Your task to perform on an android device: Show the shopping cart on bestbuy. Search for macbook on bestbuy, select the first entry, and add it to the cart. Image 0: 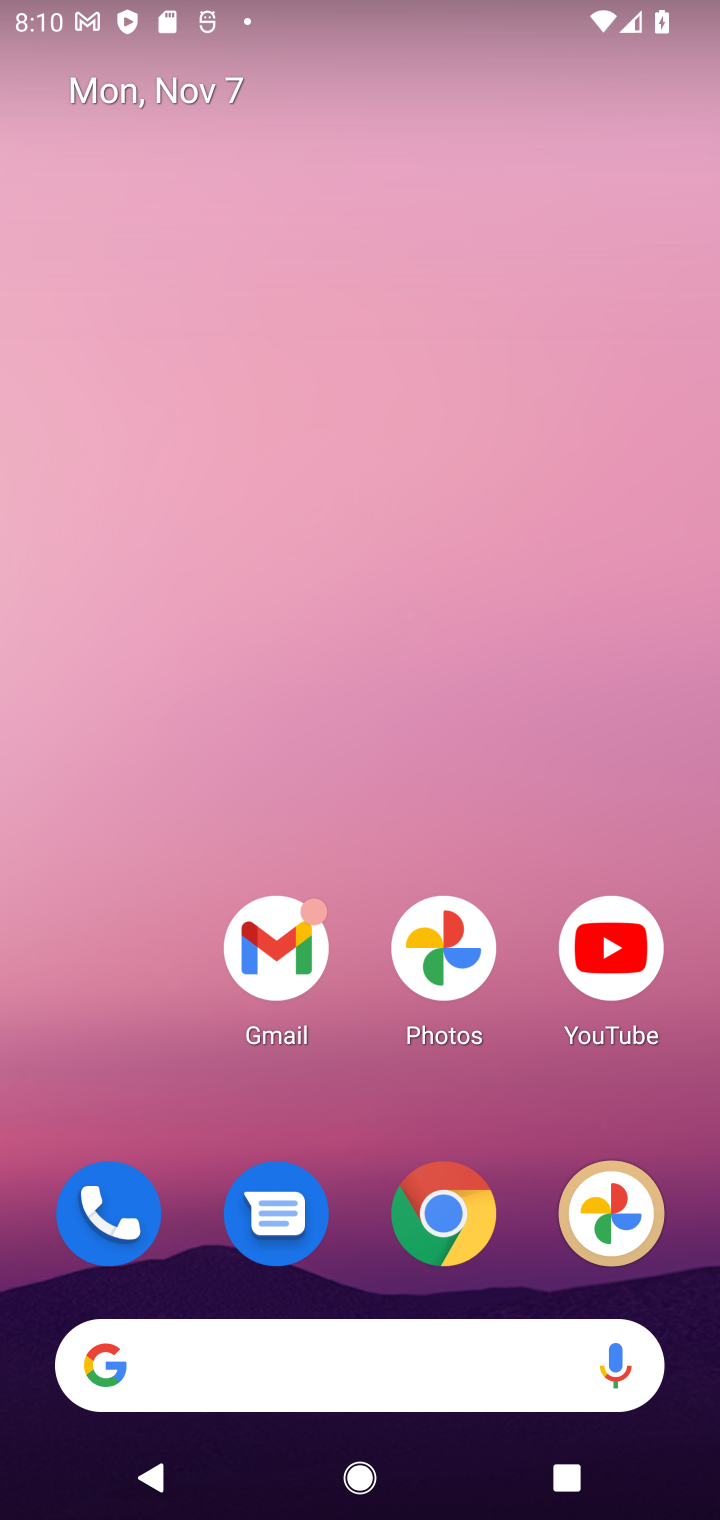
Step 0: click (440, 1212)
Your task to perform on an android device: Show the shopping cart on bestbuy. Search for macbook on bestbuy, select the first entry, and add it to the cart. Image 1: 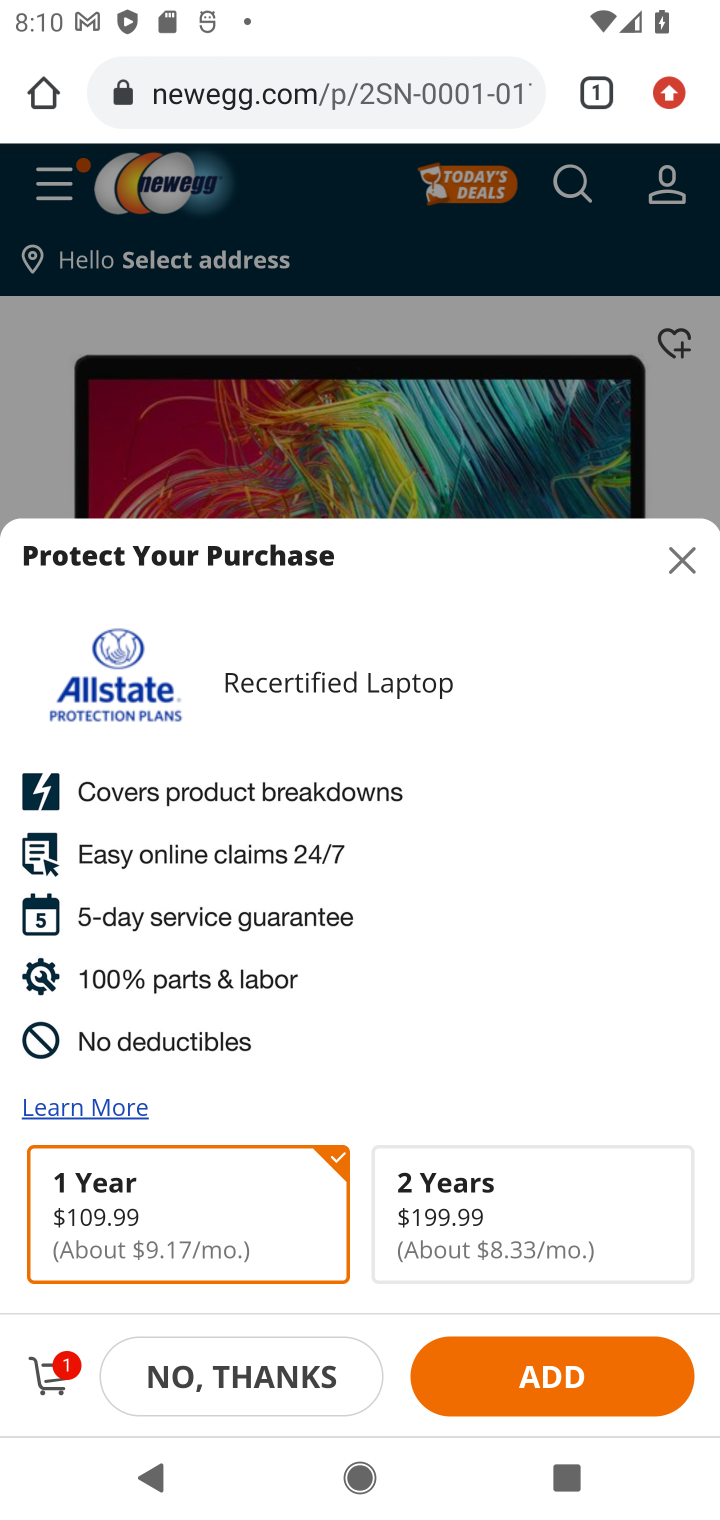
Step 1: click (341, 96)
Your task to perform on an android device: Show the shopping cart on bestbuy. Search for macbook on bestbuy, select the first entry, and add it to the cart. Image 2: 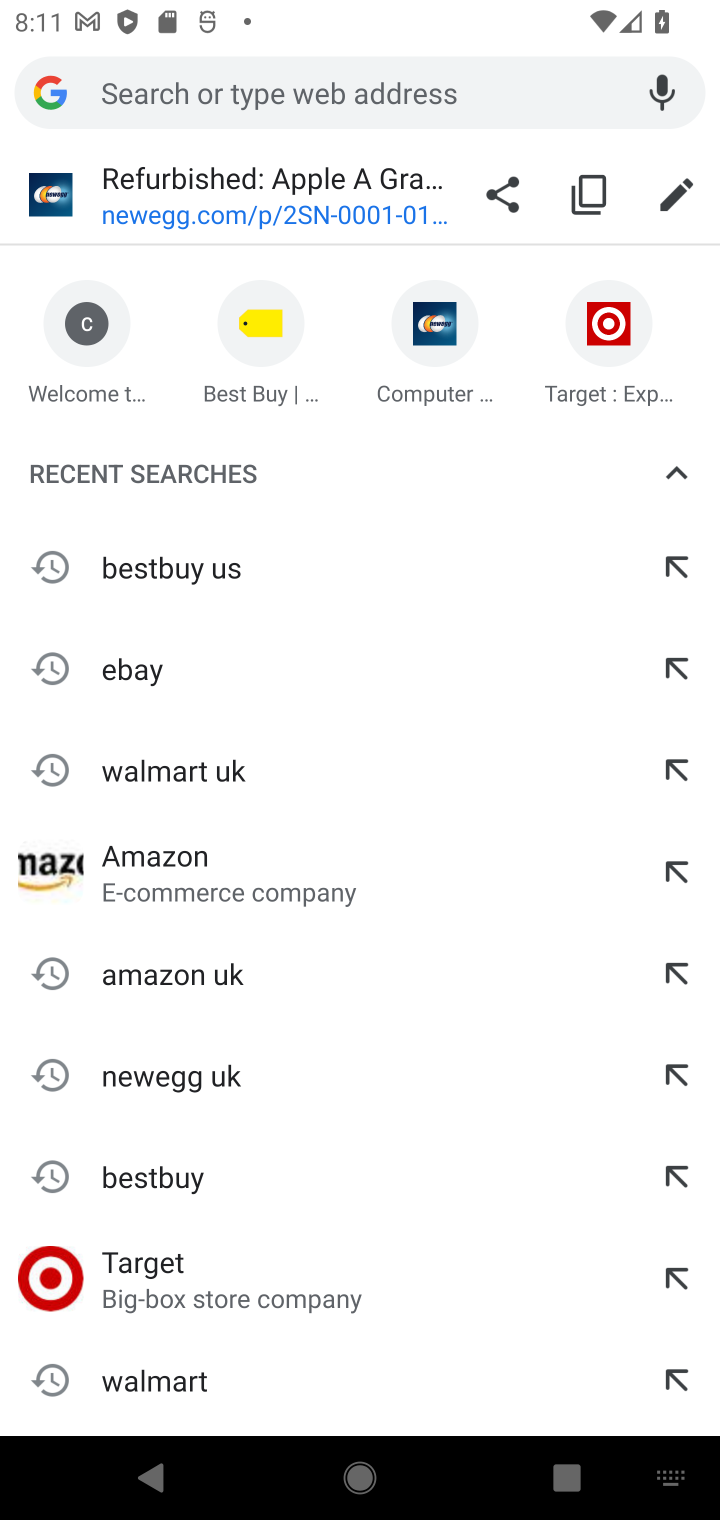
Step 2: type "bestbuy.com"
Your task to perform on an android device: Show the shopping cart on bestbuy. Search for macbook on bestbuy, select the first entry, and add it to the cart. Image 3: 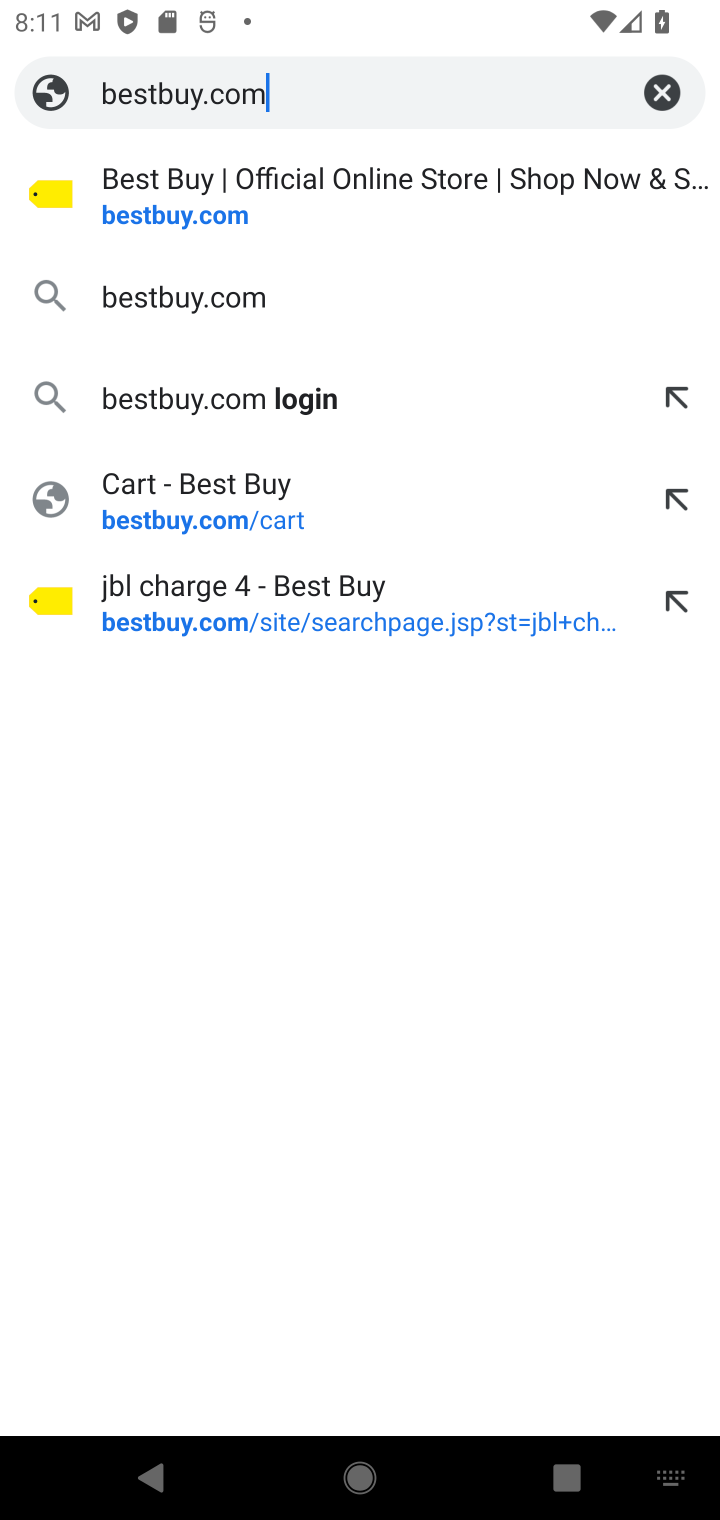
Step 3: click (207, 220)
Your task to perform on an android device: Show the shopping cart on bestbuy. Search for macbook on bestbuy, select the first entry, and add it to the cart. Image 4: 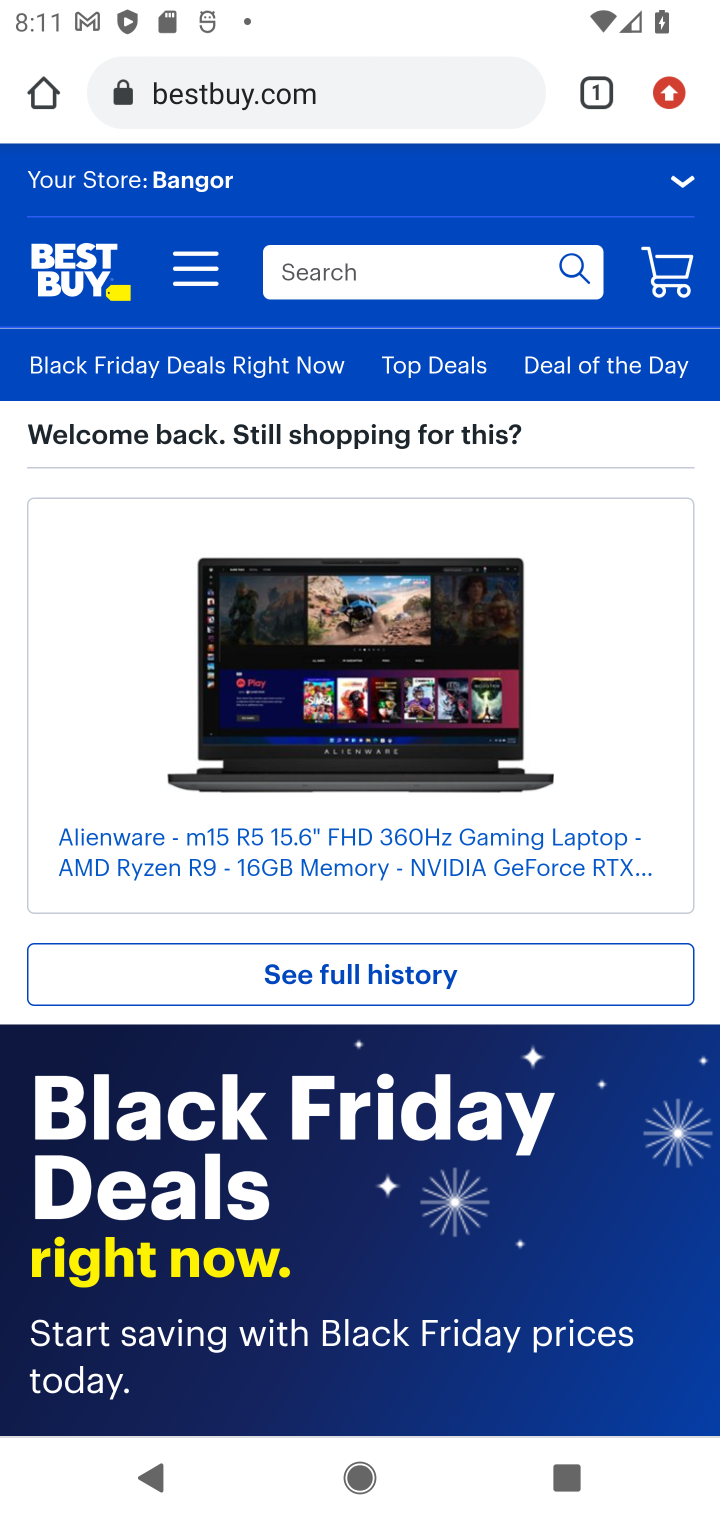
Step 4: click (672, 278)
Your task to perform on an android device: Show the shopping cart on bestbuy. Search for macbook on bestbuy, select the first entry, and add it to the cart. Image 5: 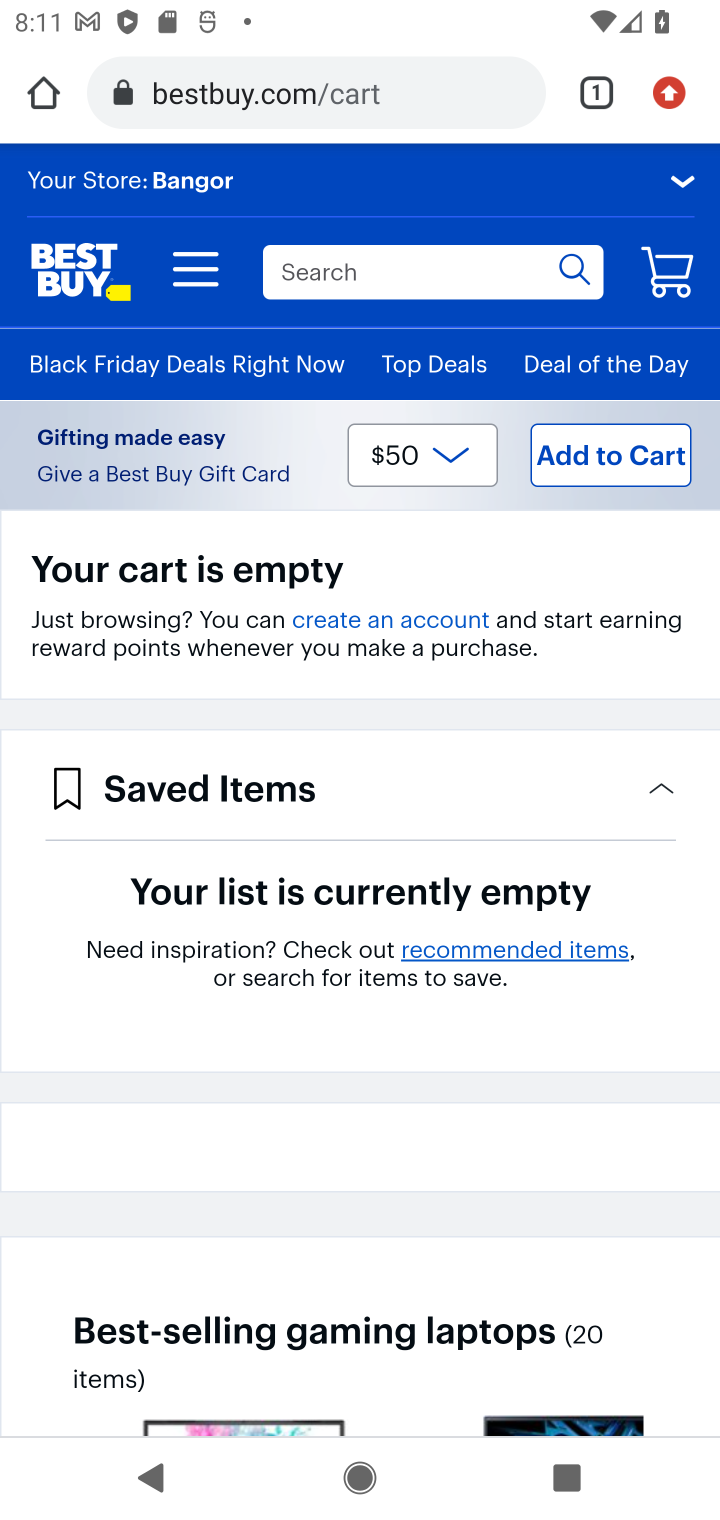
Step 5: click (353, 278)
Your task to perform on an android device: Show the shopping cart on bestbuy. Search for macbook on bestbuy, select the first entry, and add it to the cart. Image 6: 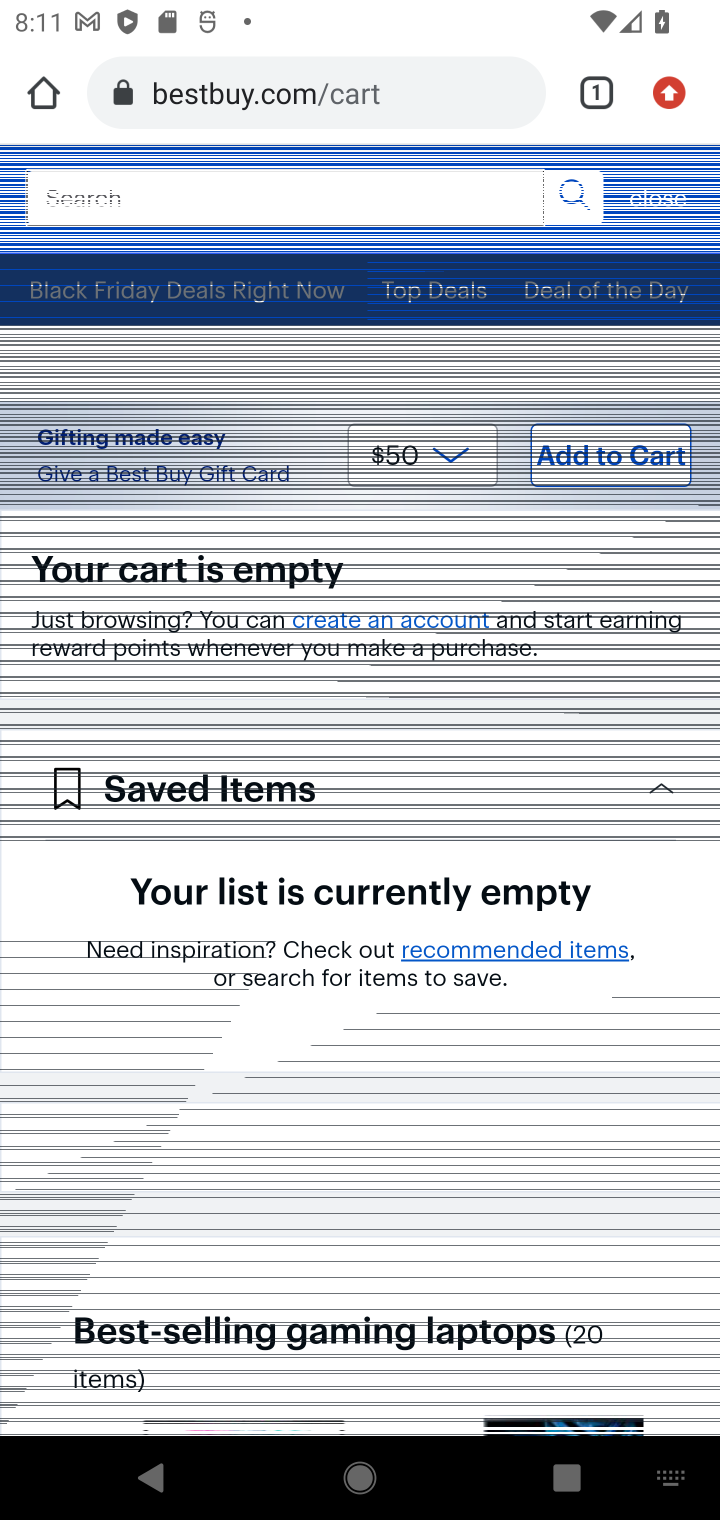
Step 6: type " macbook "
Your task to perform on an android device: Show the shopping cart on bestbuy. Search for macbook on bestbuy, select the first entry, and add it to the cart. Image 7: 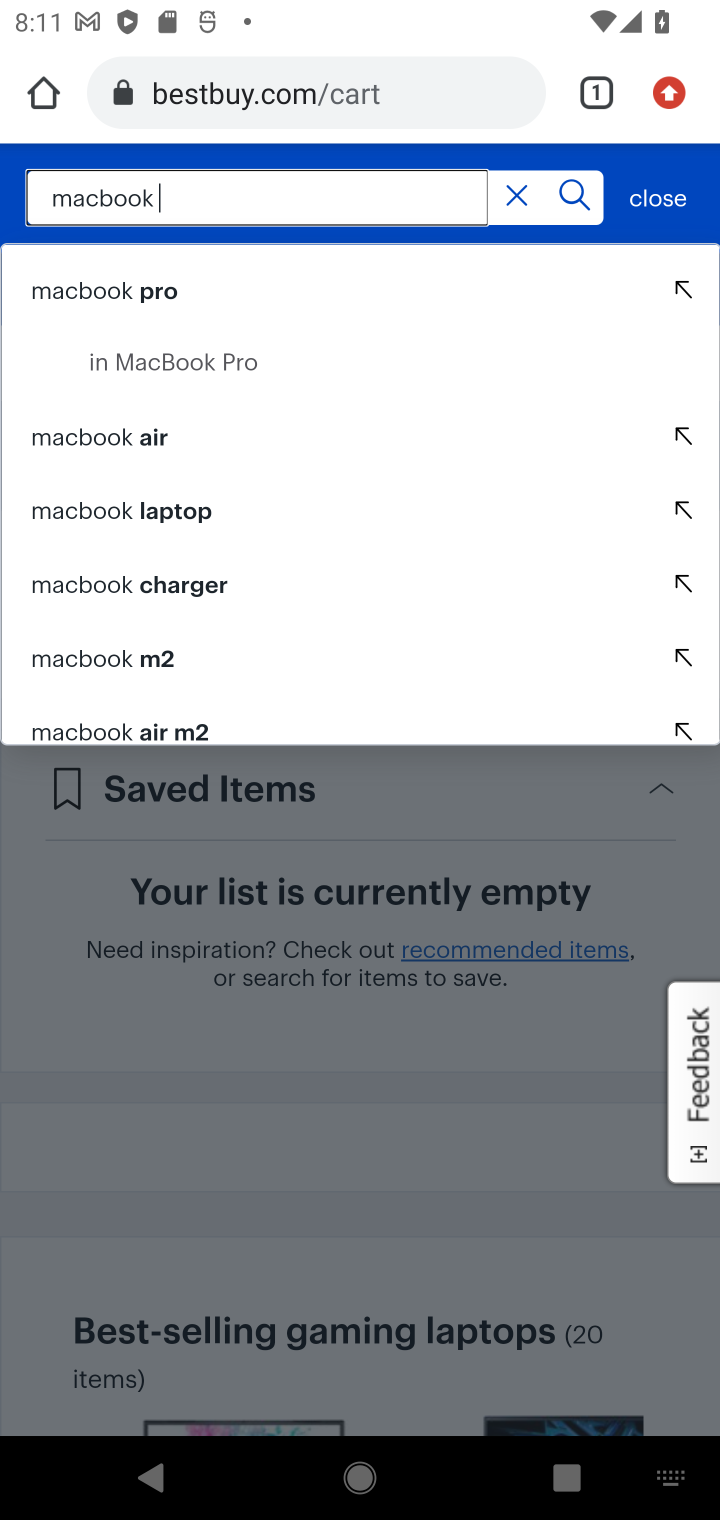
Step 7: click (562, 191)
Your task to perform on an android device: Show the shopping cart on bestbuy. Search for macbook on bestbuy, select the first entry, and add it to the cart. Image 8: 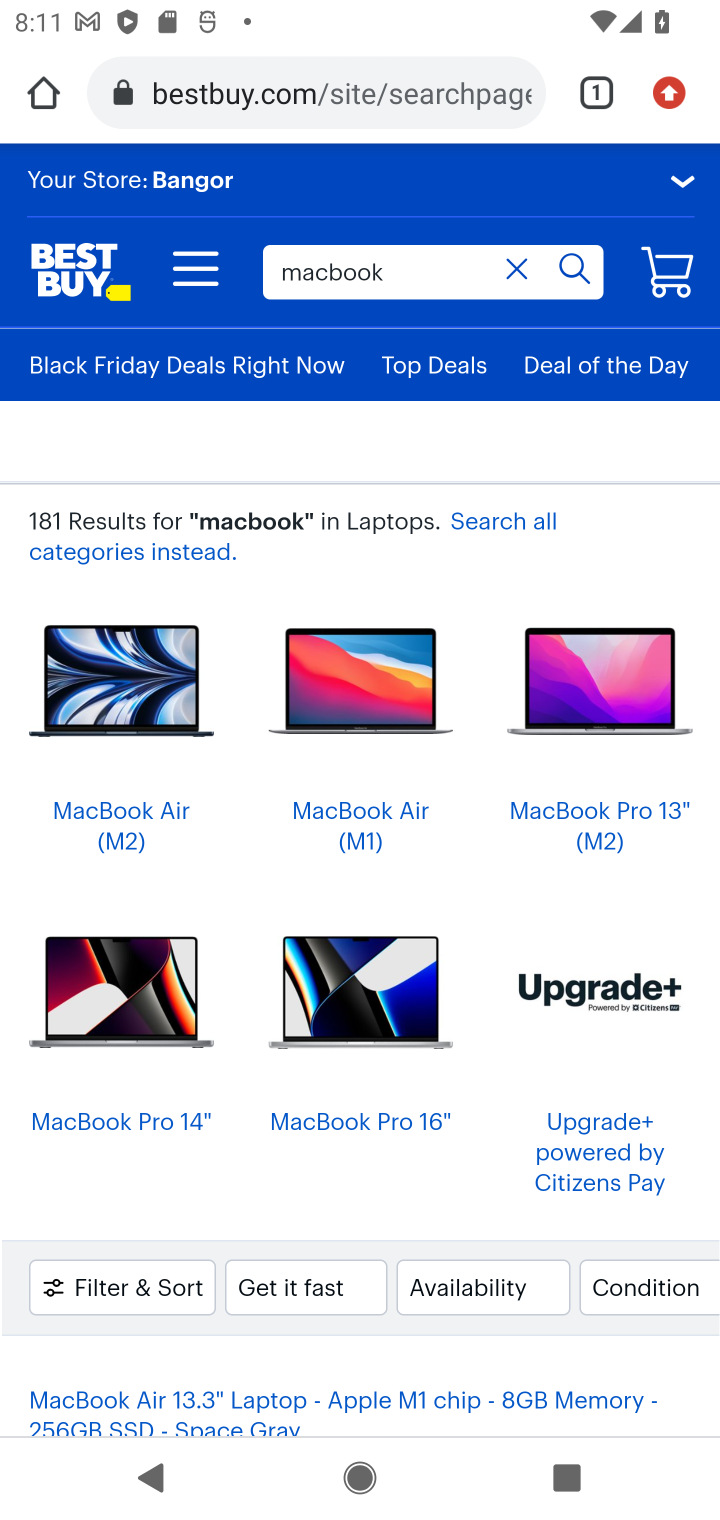
Step 8: drag from (265, 1073) to (269, 437)
Your task to perform on an android device: Show the shopping cart on bestbuy. Search for macbook on bestbuy, select the first entry, and add it to the cart. Image 9: 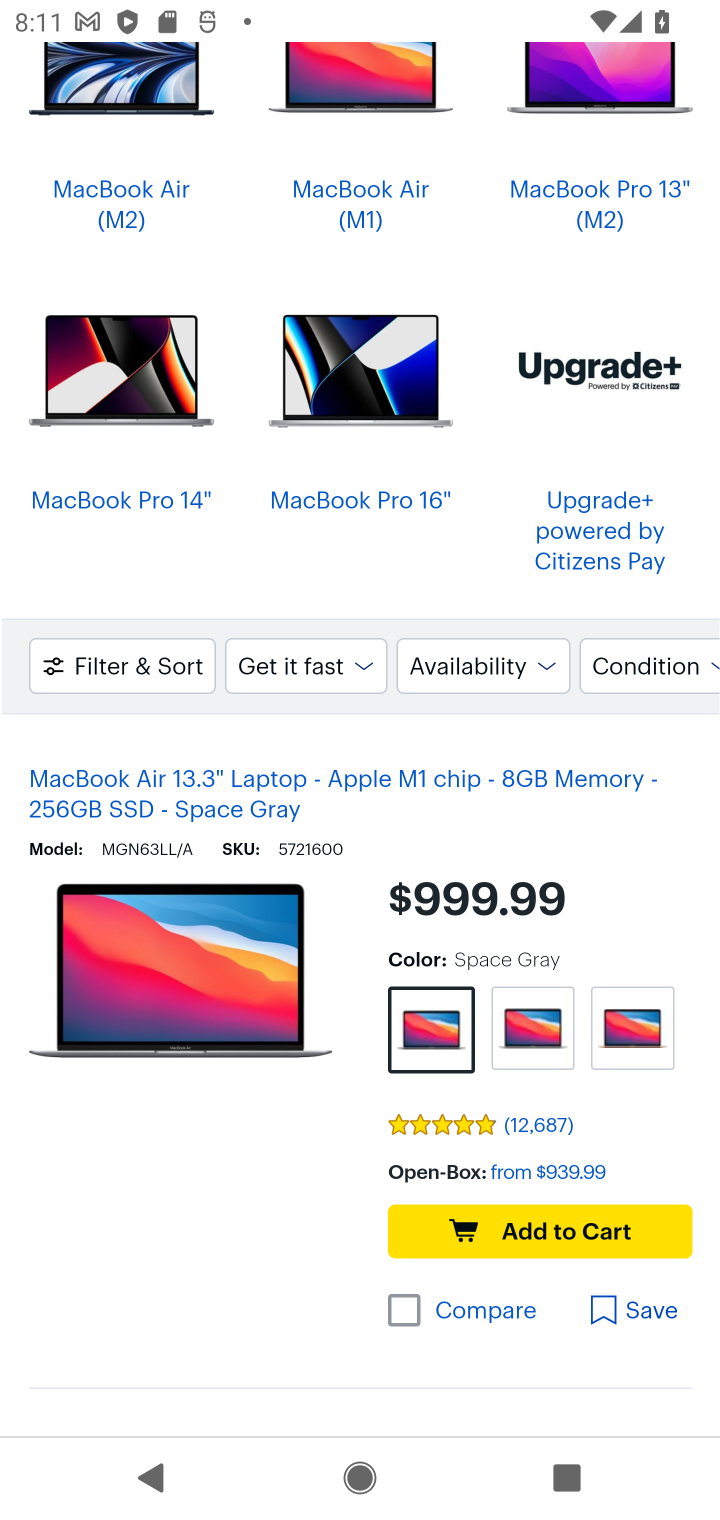
Step 9: click (530, 1230)
Your task to perform on an android device: Show the shopping cart on bestbuy. Search for macbook on bestbuy, select the first entry, and add it to the cart. Image 10: 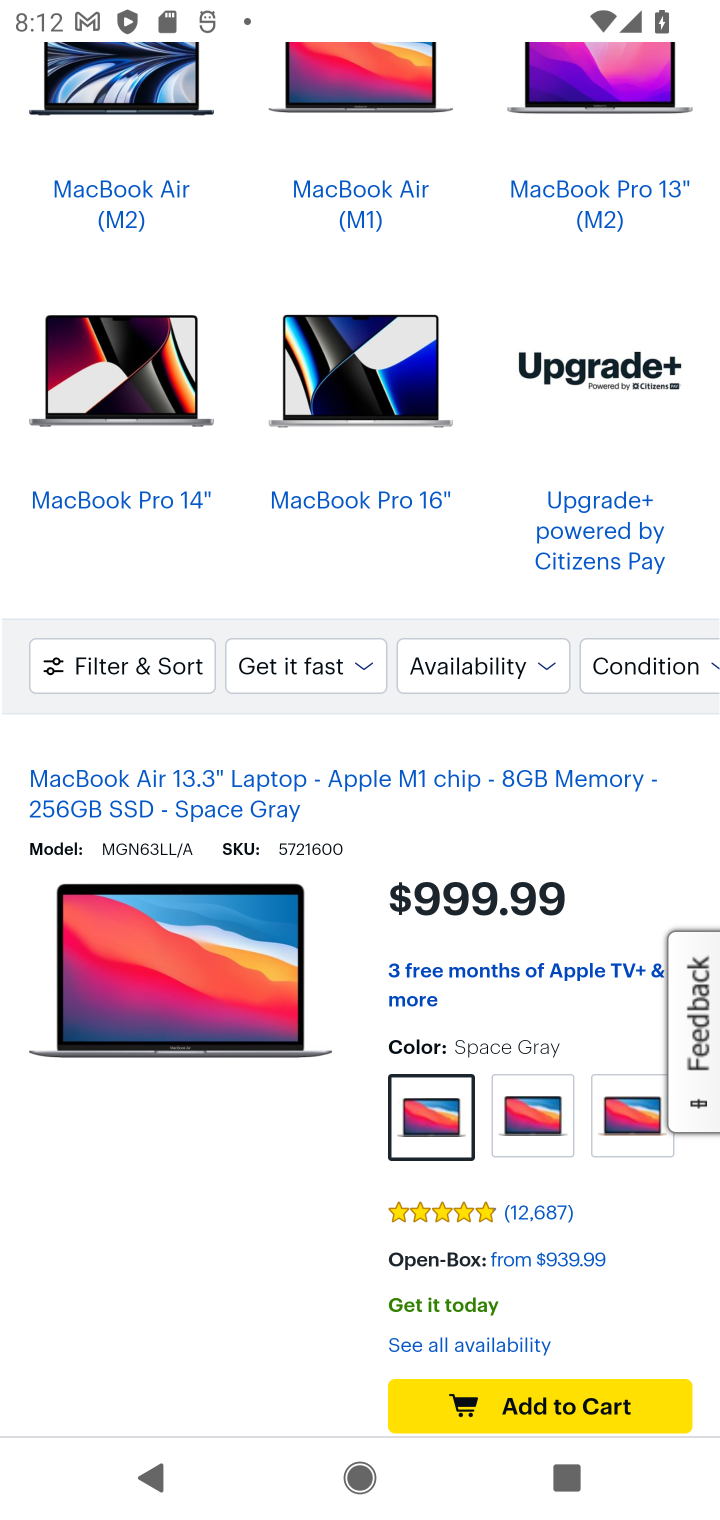
Step 10: drag from (216, 1232) to (231, 973)
Your task to perform on an android device: Show the shopping cart on bestbuy. Search for macbook on bestbuy, select the first entry, and add it to the cart. Image 11: 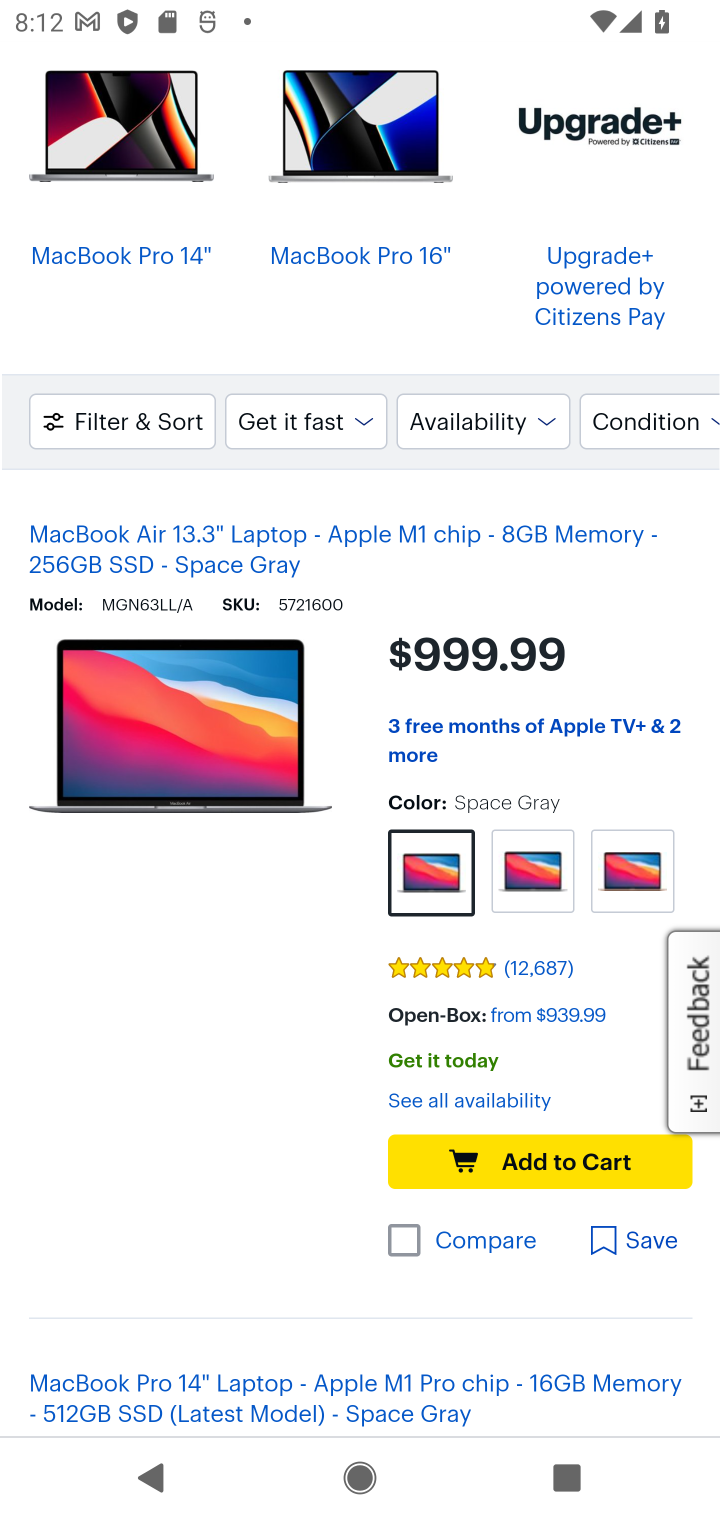
Step 11: drag from (253, 717) to (183, 1154)
Your task to perform on an android device: Show the shopping cart on bestbuy. Search for macbook on bestbuy, select the first entry, and add it to the cart. Image 12: 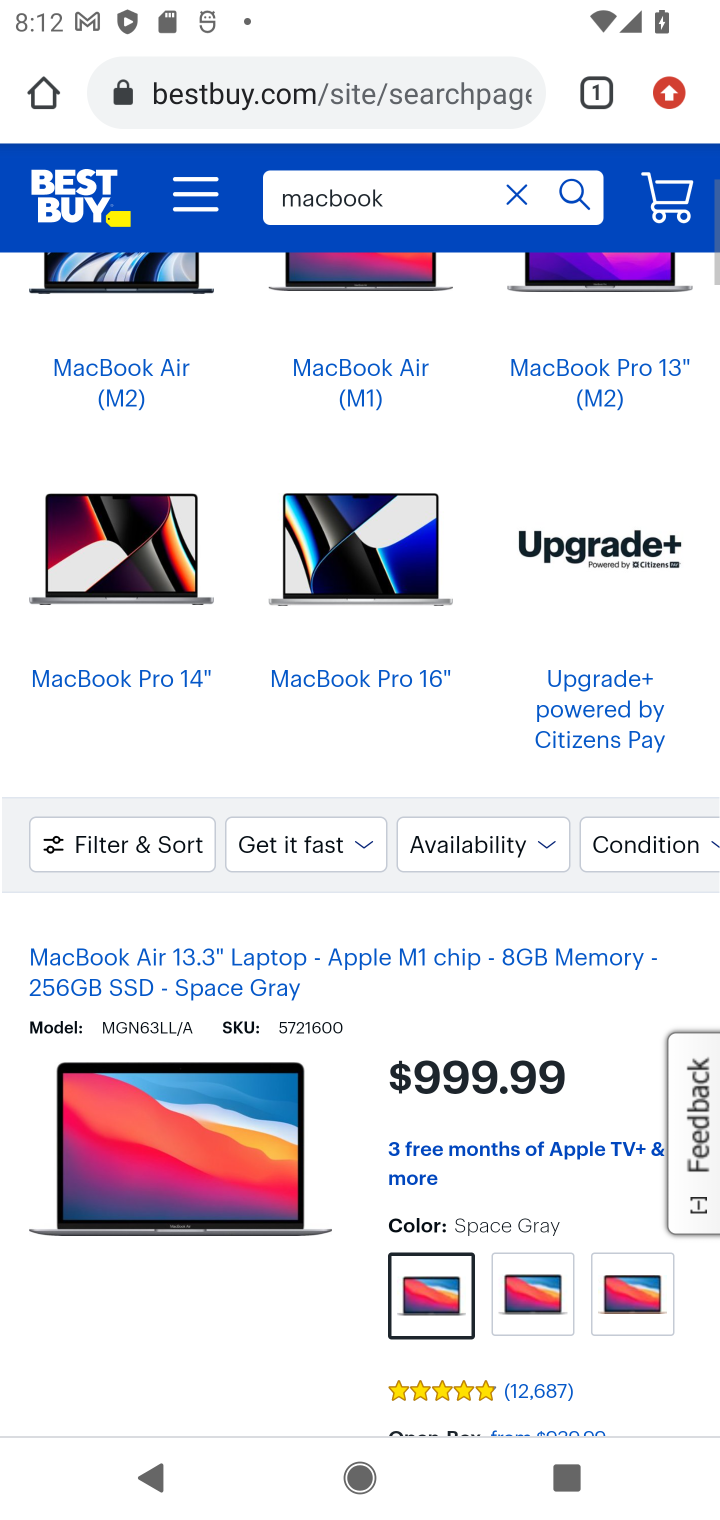
Step 12: drag from (290, 439) to (278, 838)
Your task to perform on an android device: Show the shopping cart on bestbuy. Search for macbook on bestbuy, select the first entry, and add it to the cart. Image 13: 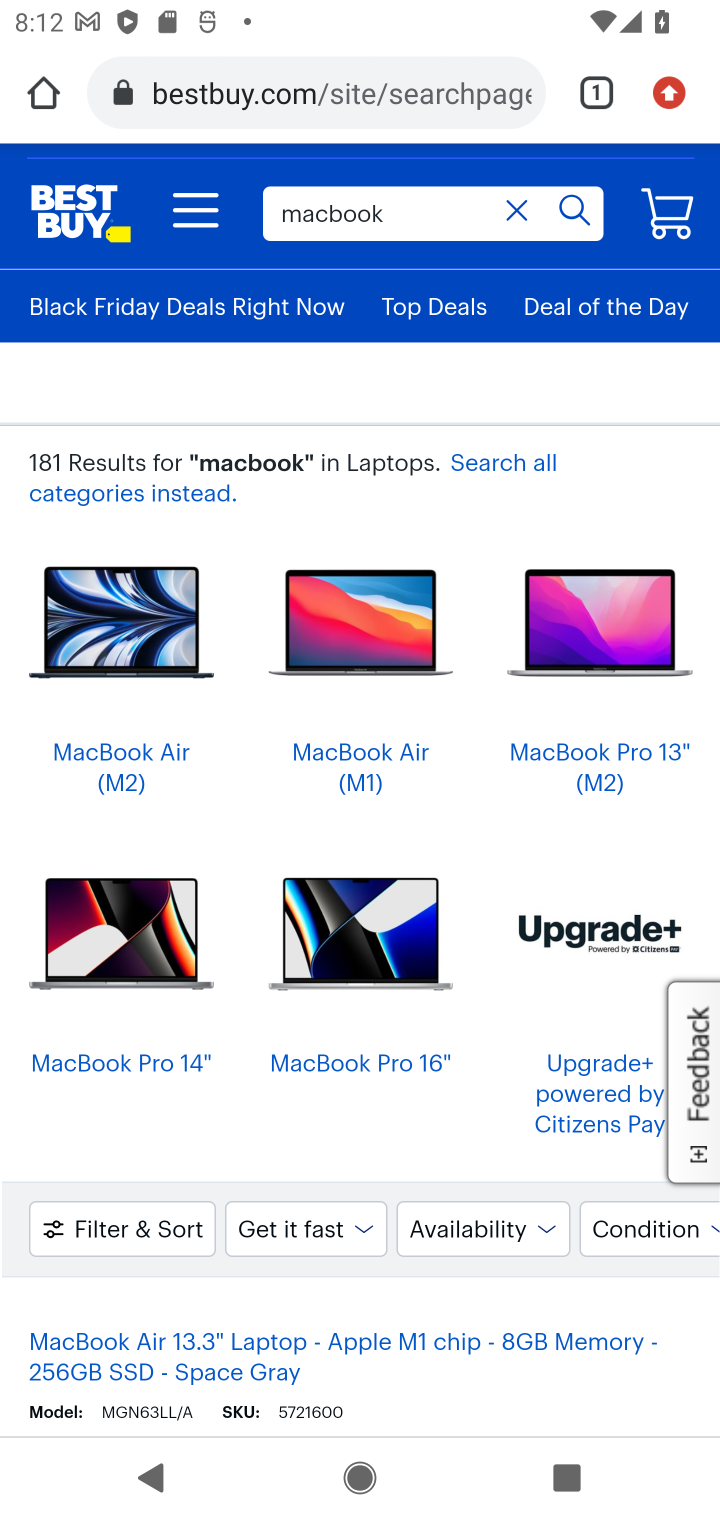
Step 13: drag from (288, 783) to (300, 375)
Your task to perform on an android device: Show the shopping cart on bestbuy. Search for macbook on bestbuy, select the first entry, and add it to the cart. Image 14: 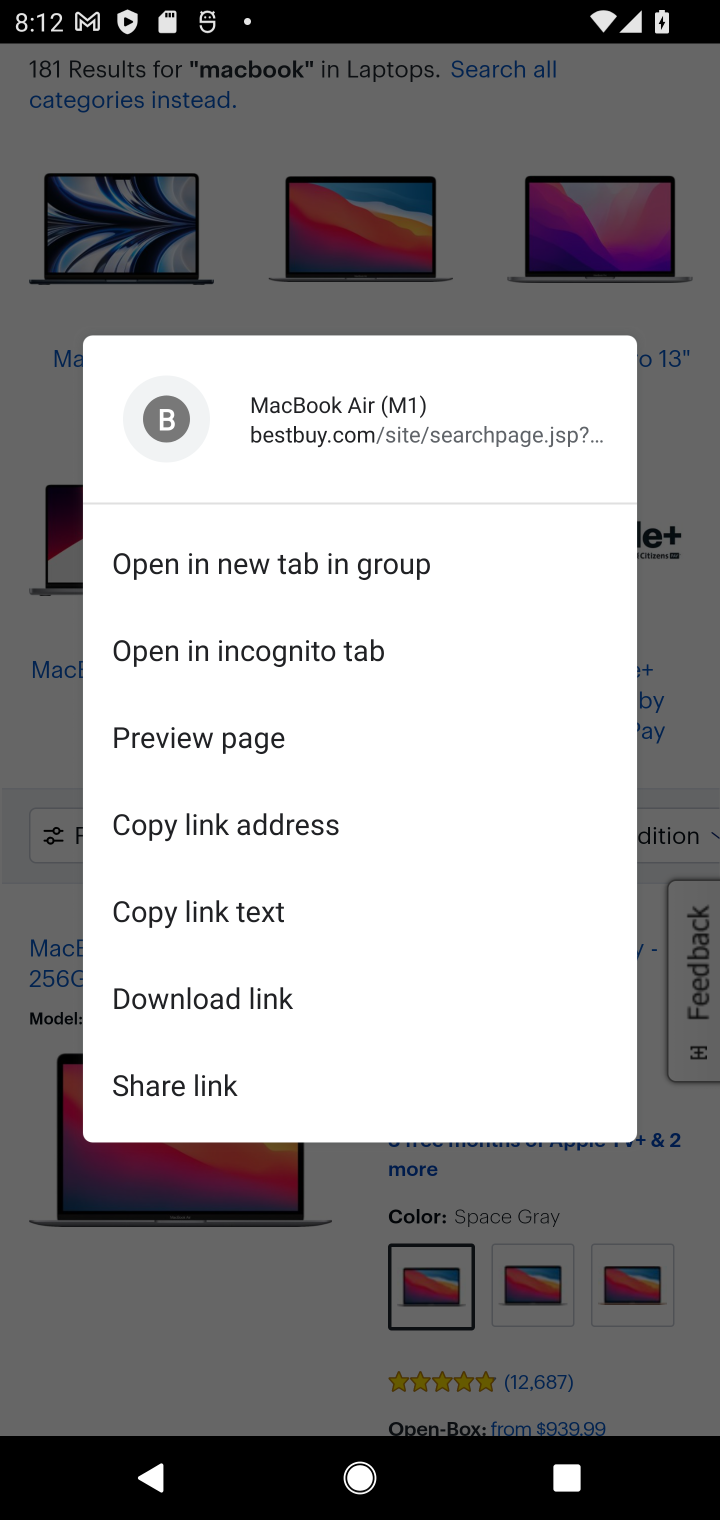
Step 14: click (200, 1210)
Your task to perform on an android device: Show the shopping cart on bestbuy. Search for macbook on bestbuy, select the first entry, and add it to the cart. Image 15: 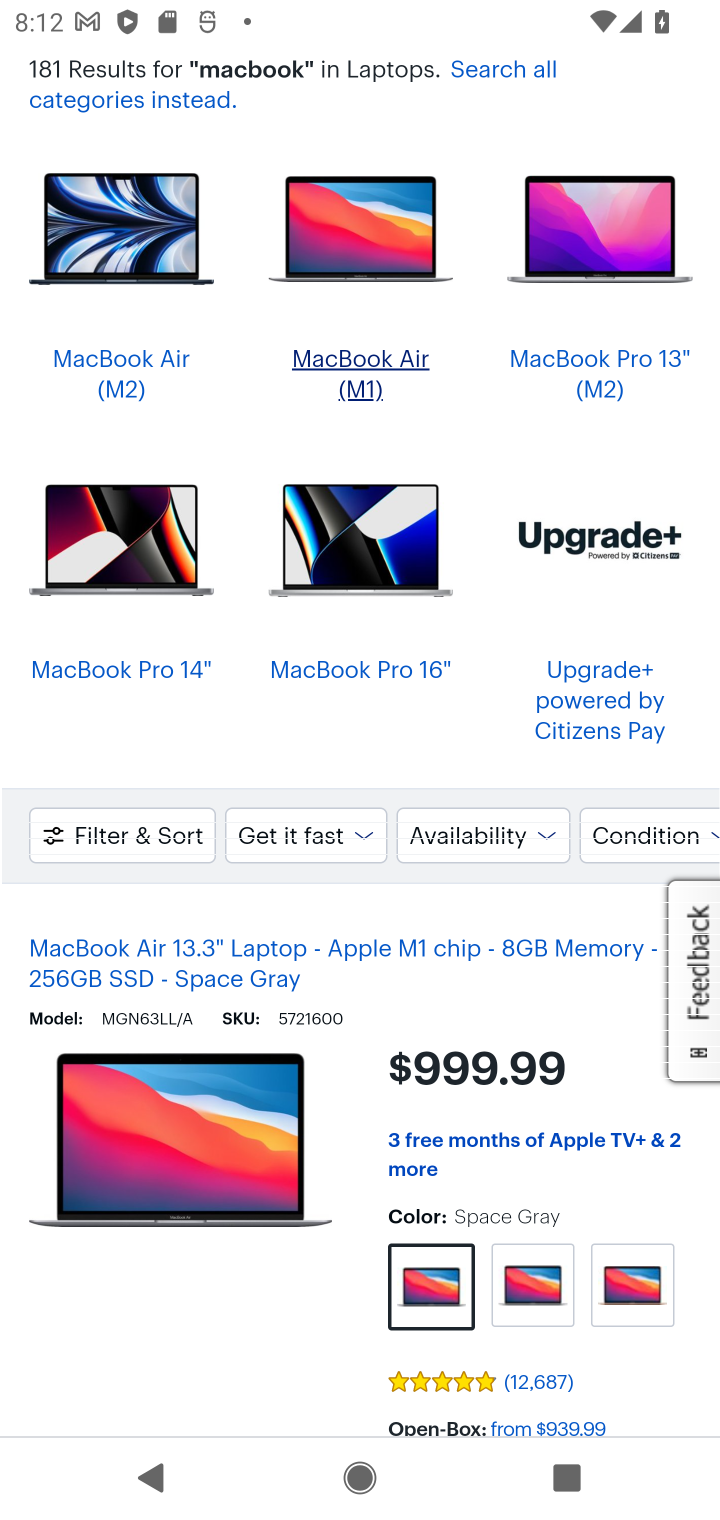
Step 15: click (200, 1210)
Your task to perform on an android device: Show the shopping cart on bestbuy. Search for macbook on bestbuy, select the first entry, and add it to the cart. Image 16: 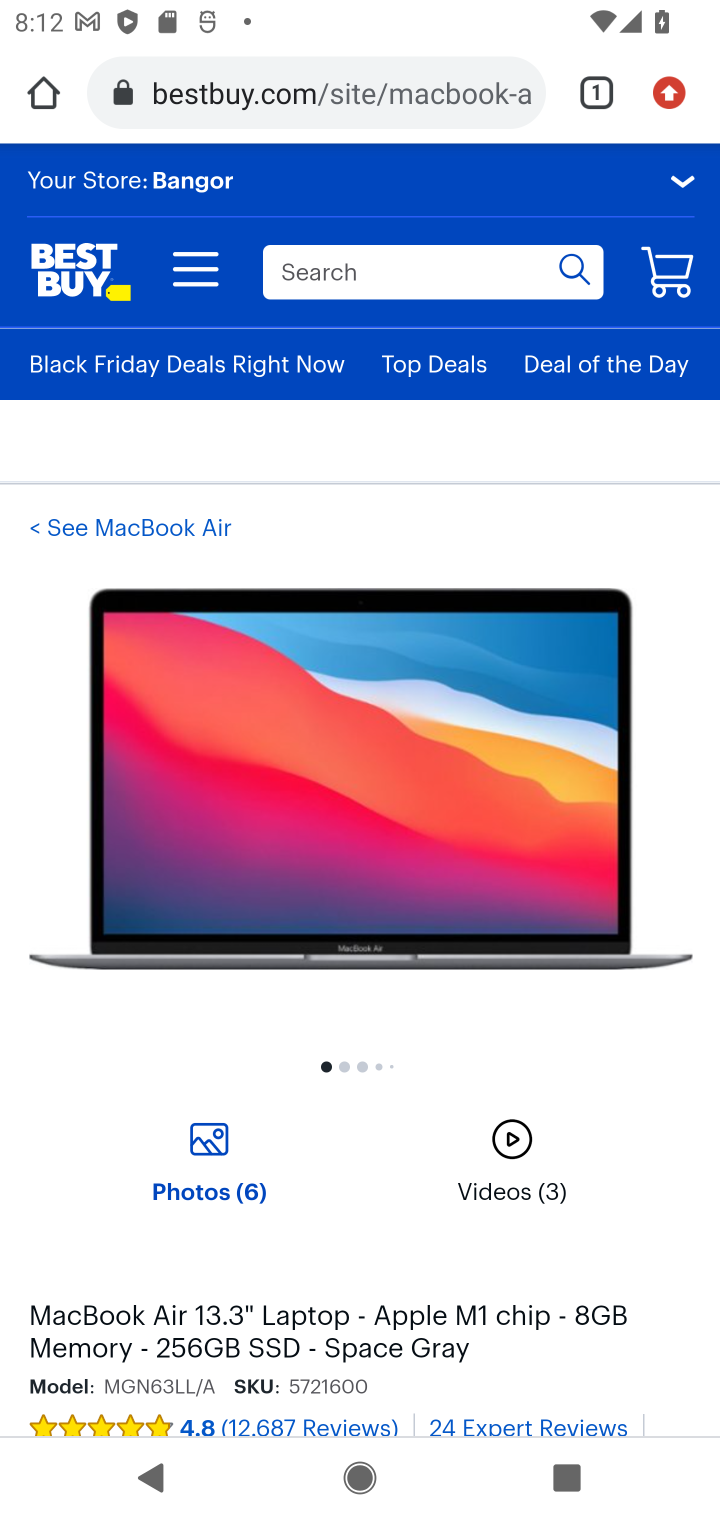
Step 16: drag from (303, 1290) to (234, 596)
Your task to perform on an android device: Show the shopping cart on bestbuy. Search for macbook on bestbuy, select the first entry, and add it to the cart. Image 17: 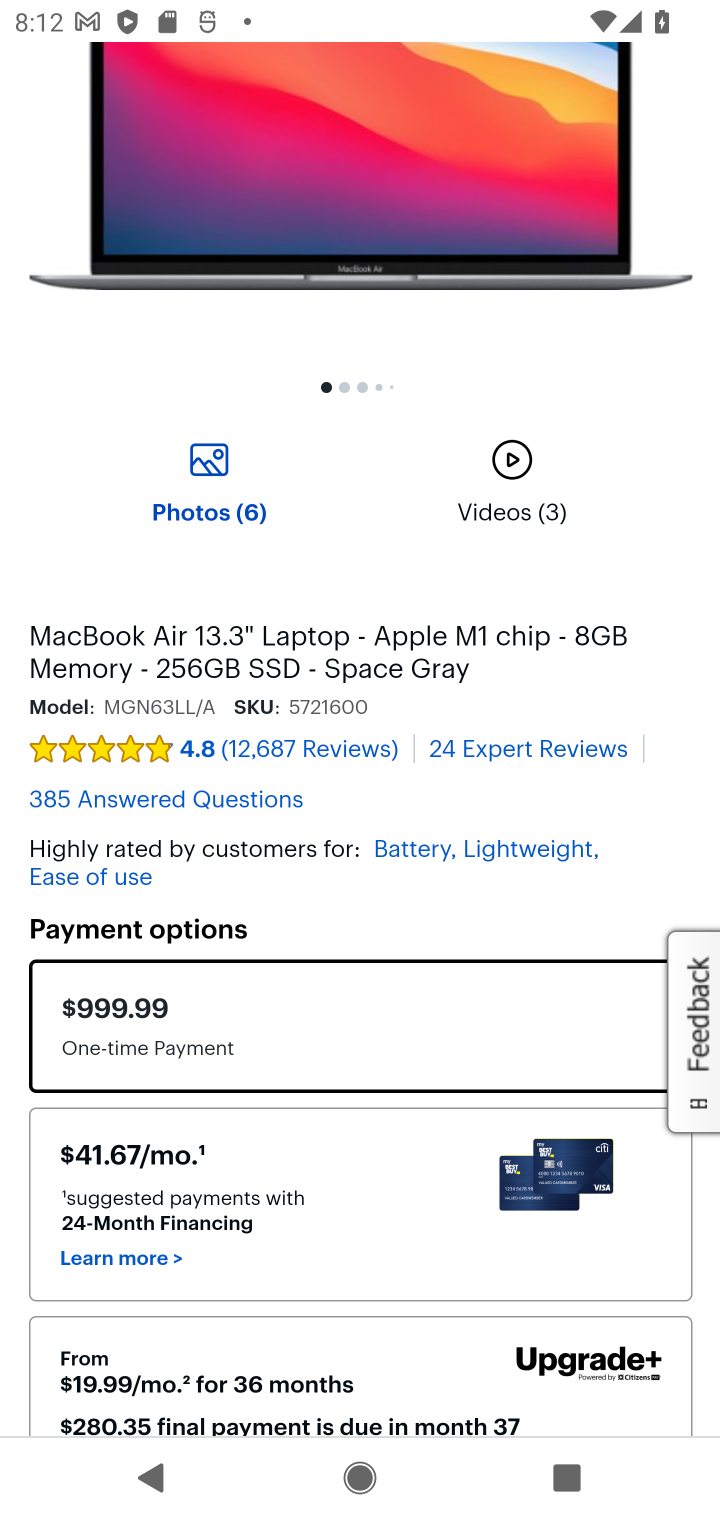
Step 17: drag from (327, 1150) to (267, 649)
Your task to perform on an android device: Show the shopping cart on bestbuy. Search for macbook on bestbuy, select the first entry, and add it to the cart. Image 18: 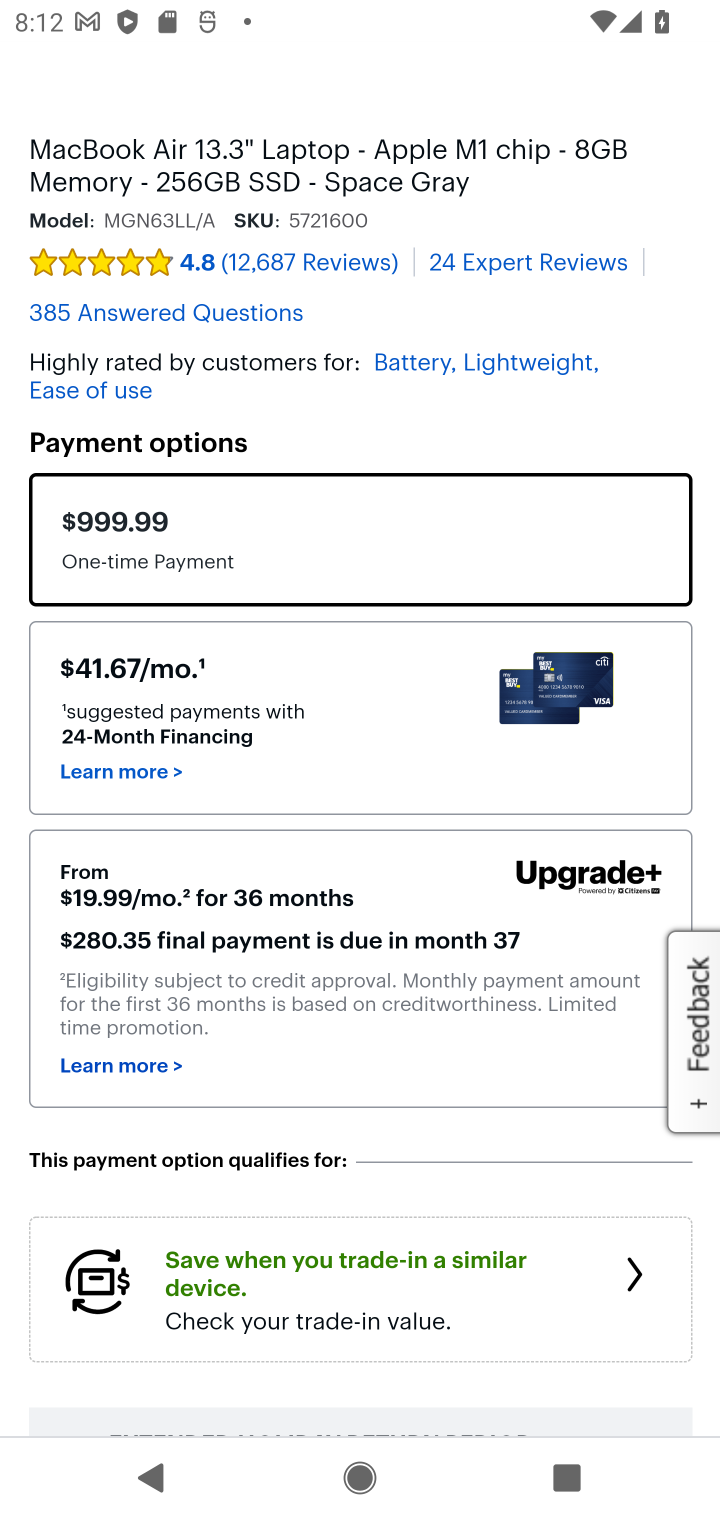
Step 18: drag from (282, 1159) to (255, 615)
Your task to perform on an android device: Show the shopping cart on bestbuy. Search for macbook on bestbuy, select the first entry, and add it to the cart. Image 19: 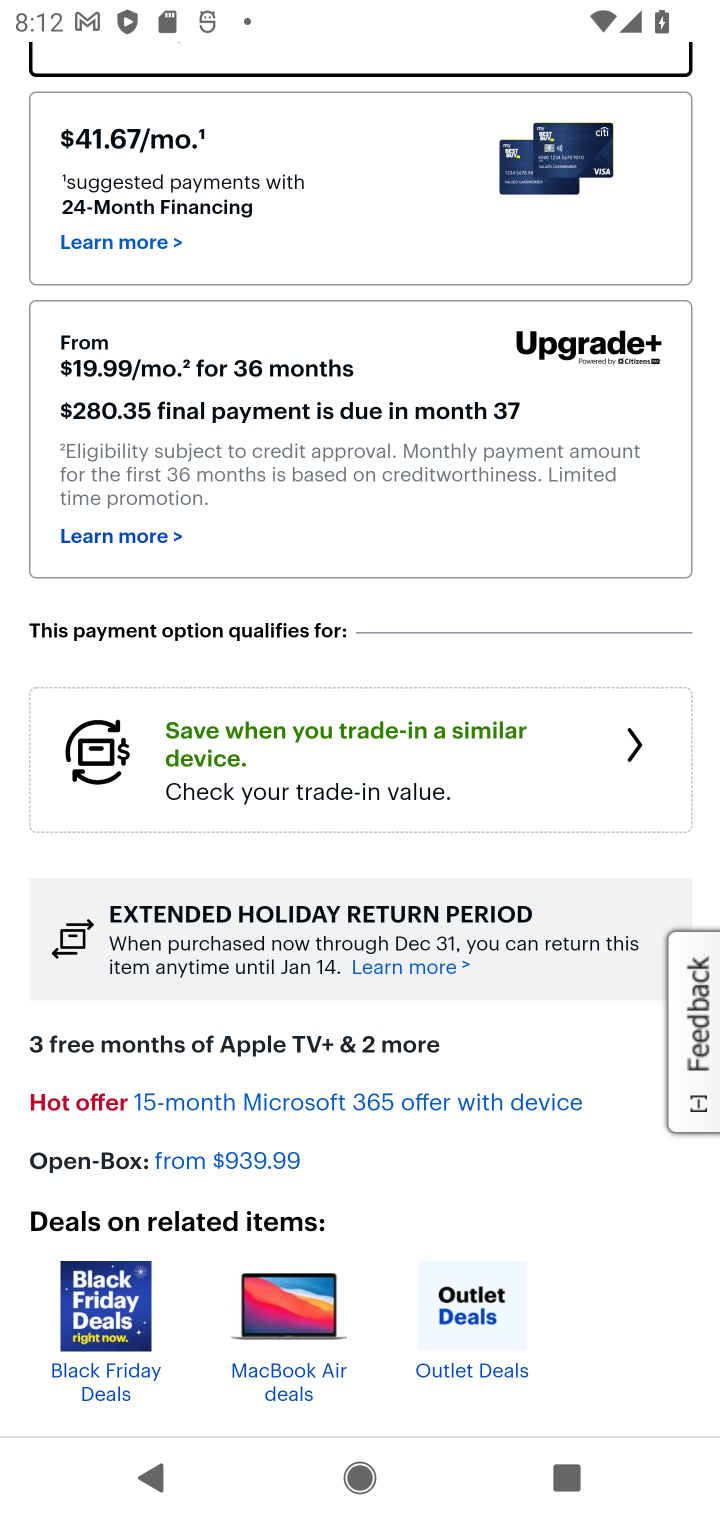
Step 19: drag from (320, 860) to (237, 403)
Your task to perform on an android device: Show the shopping cart on bestbuy. Search for macbook on bestbuy, select the first entry, and add it to the cart. Image 20: 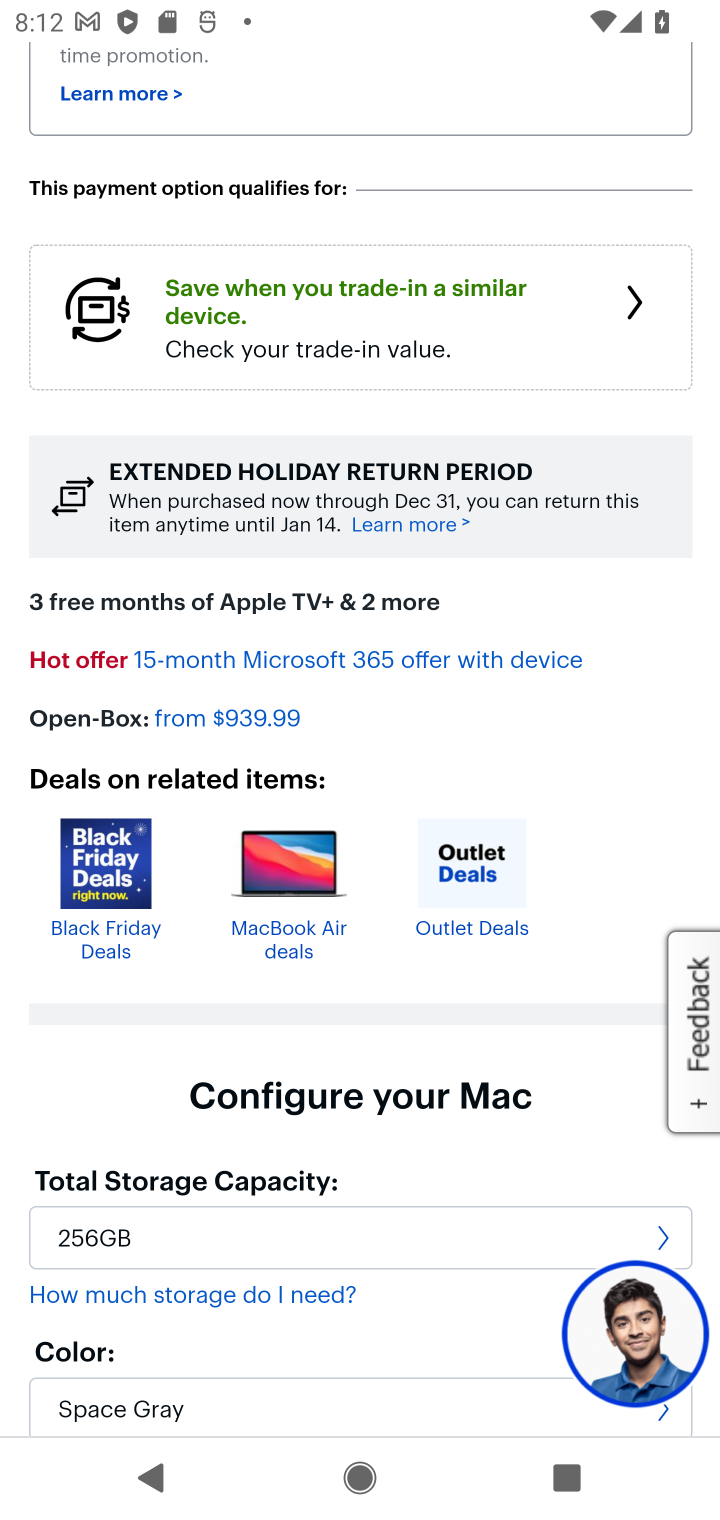
Step 20: drag from (286, 1075) to (254, 539)
Your task to perform on an android device: Show the shopping cart on bestbuy. Search for macbook on bestbuy, select the first entry, and add it to the cart. Image 21: 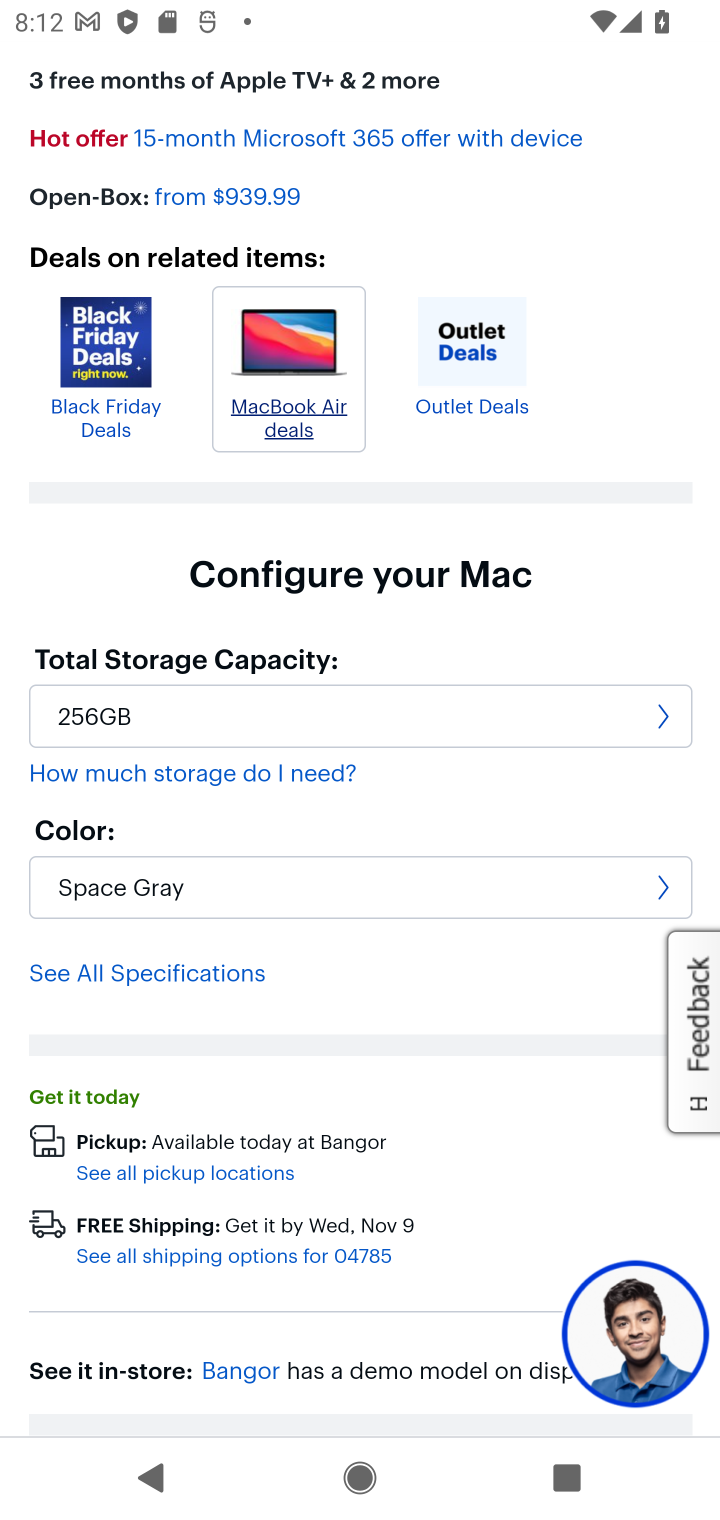
Step 21: drag from (286, 1014) to (272, 560)
Your task to perform on an android device: Show the shopping cart on bestbuy. Search for macbook on bestbuy, select the first entry, and add it to the cart. Image 22: 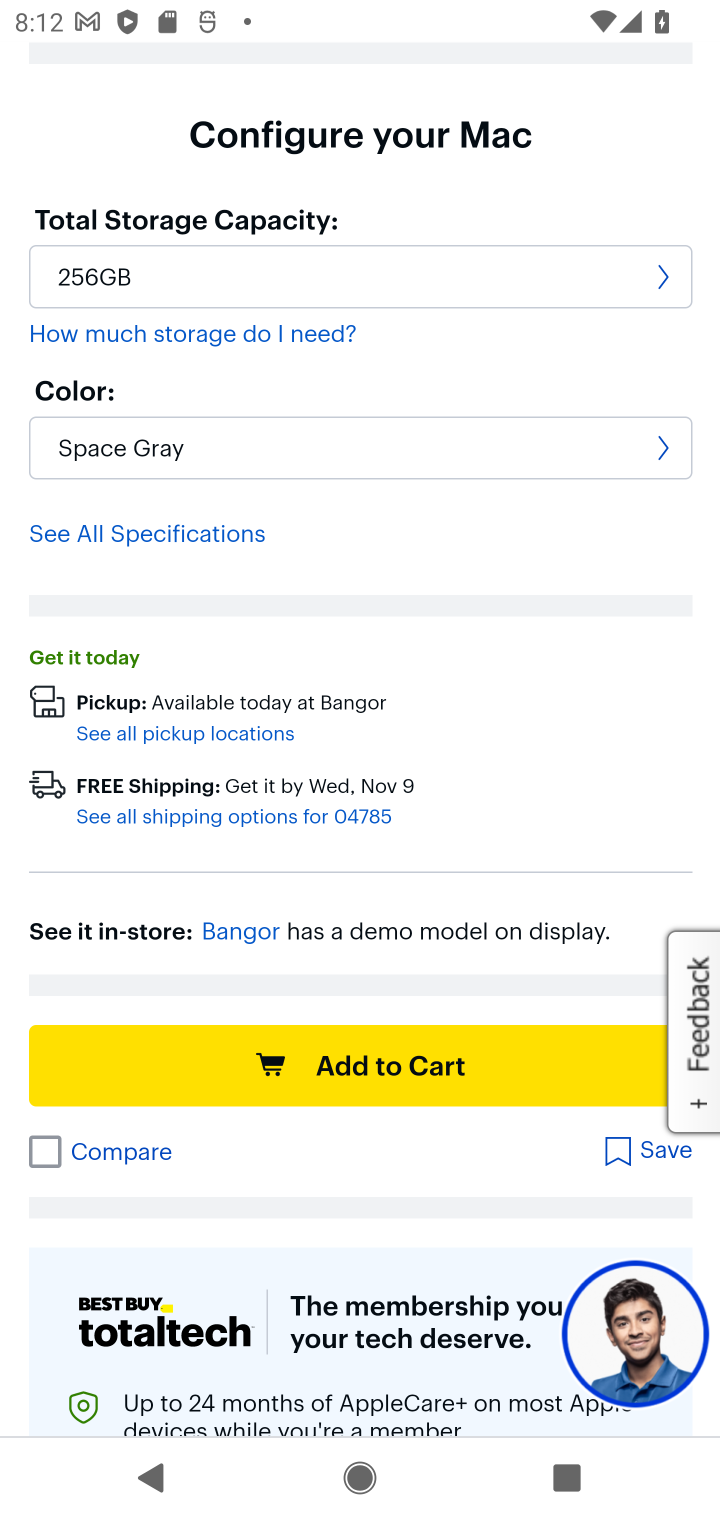
Step 22: click (290, 1091)
Your task to perform on an android device: Show the shopping cart on bestbuy. Search for macbook on bestbuy, select the first entry, and add it to the cart. Image 23: 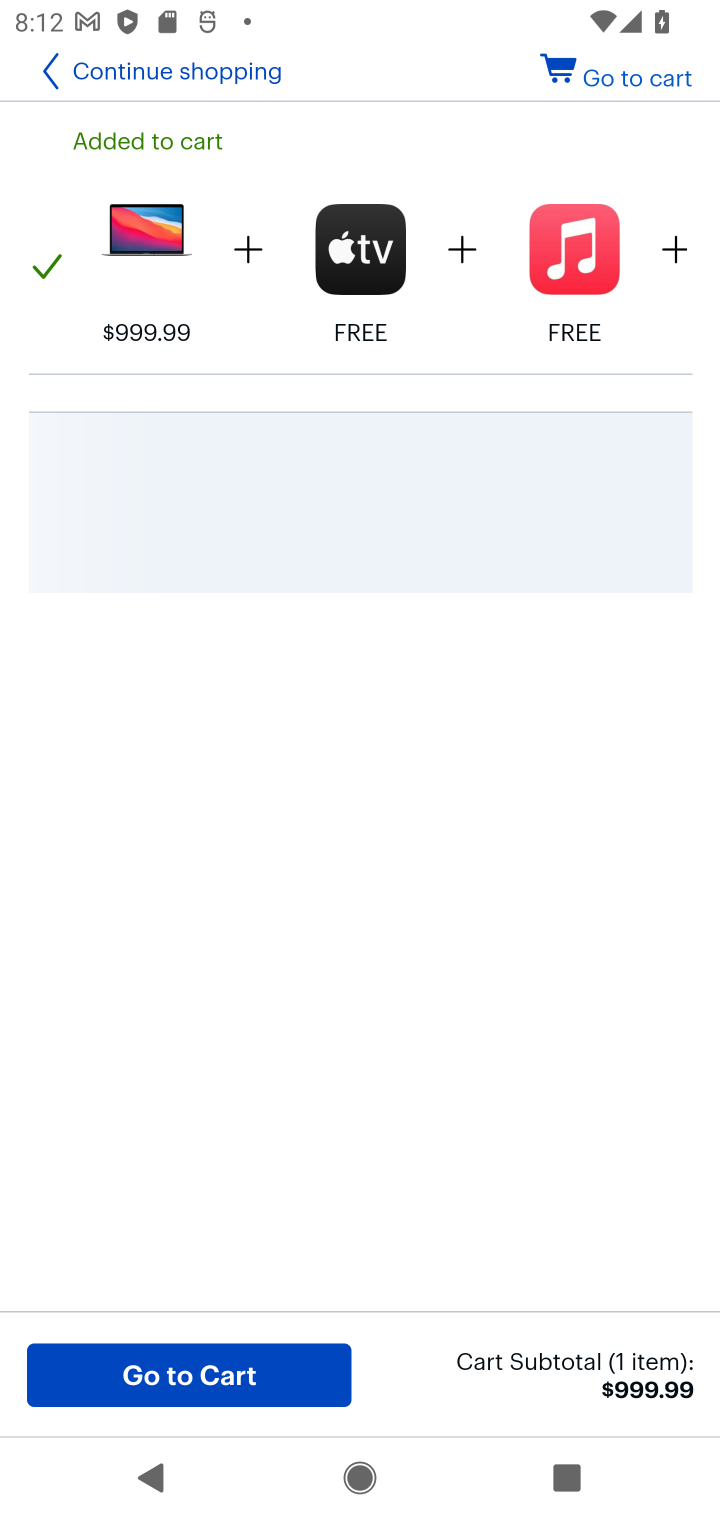
Step 23: click (590, 84)
Your task to perform on an android device: Show the shopping cart on bestbuy. Search for macbook on bestbuy, select the first entry, and add it to the cart. Image 24: 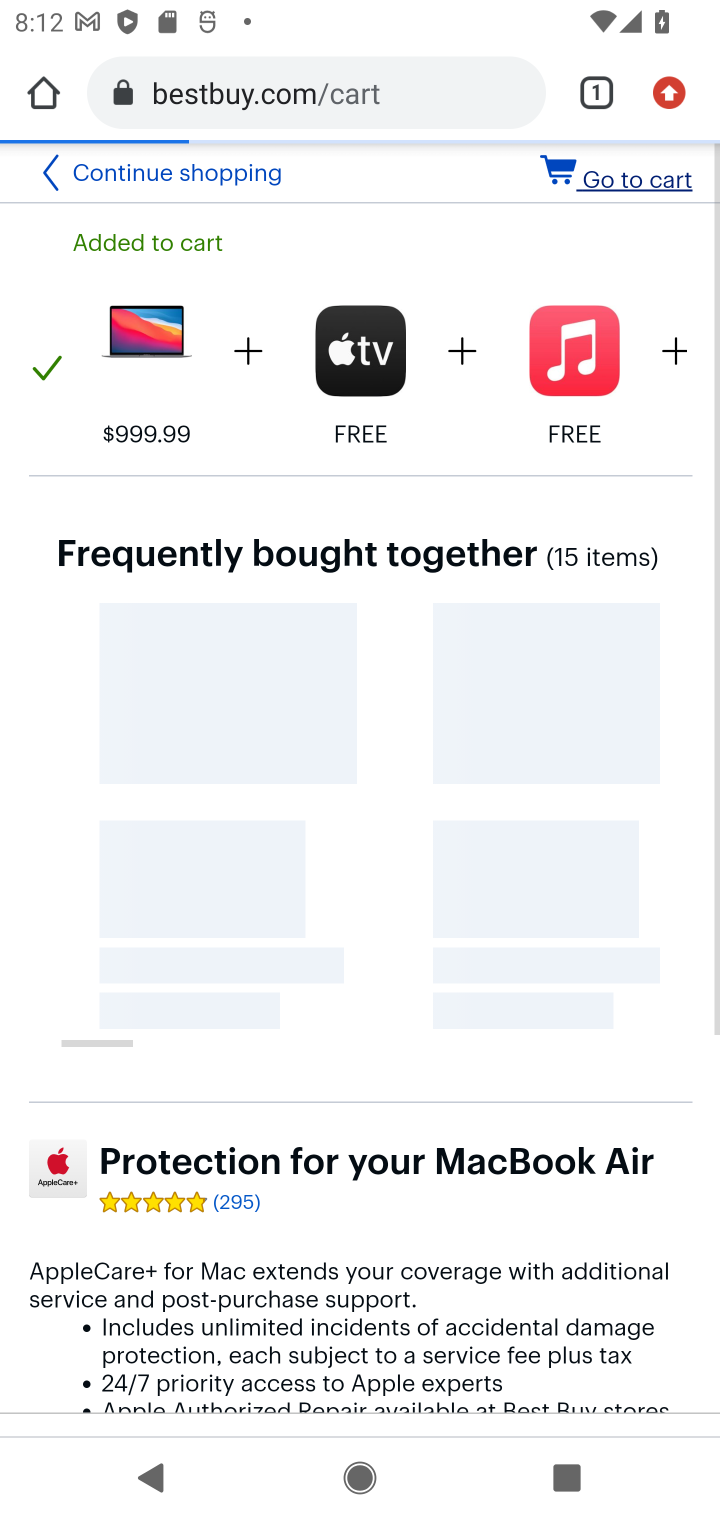
Step 24: task complete